Your task to perform on an android device: Go to Wikipedia Image 0: 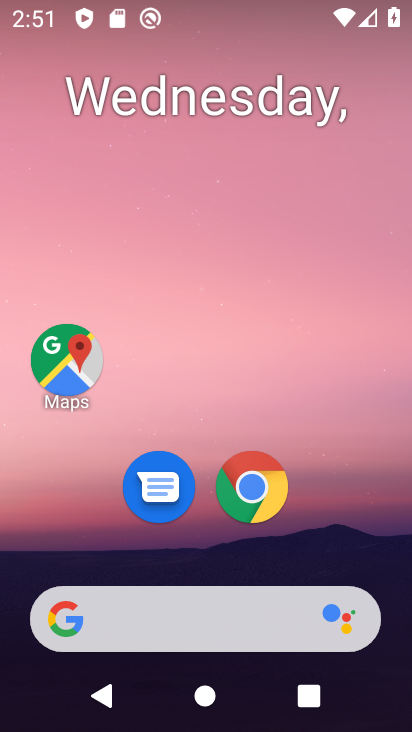
Step 0: drag from (230, 563) to (265, 79)
Your task to perform on an android device: Go to Wikipedia Image 1: 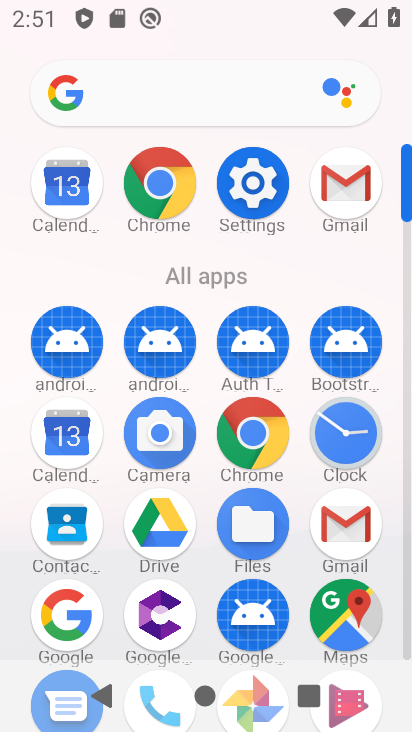
Step 1: click (268, 433)
Your task to perform on an android device: Go to Wikipedia Image 2: 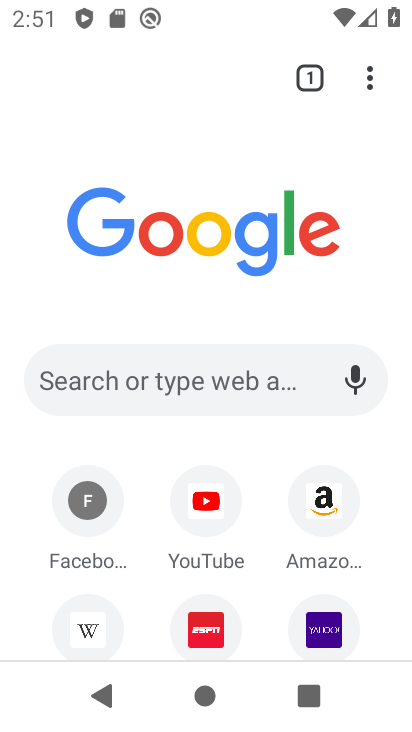
Step 2: click (75, 639)
Your task to perform on an android device: Go to Wikipedia Image 3: 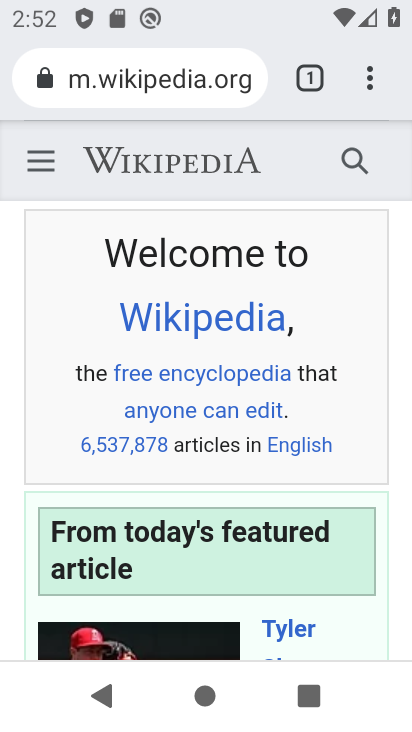
Step 3: drag from (215, 543) to (206, 186)
Your task to perform on an android device: Go to Wikipedia Image 4: 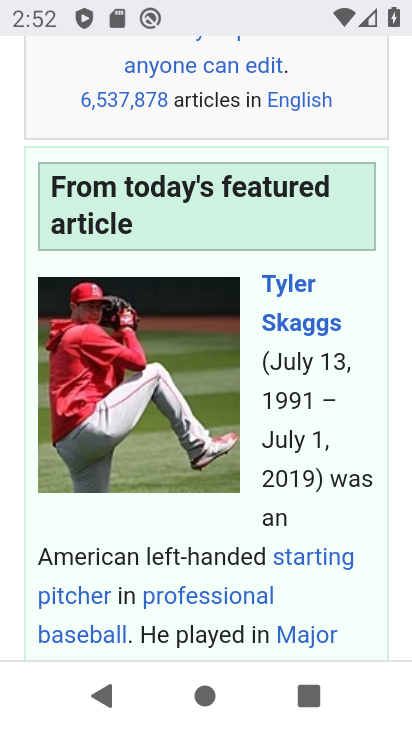
Step 4: click (268, 228)
Your task to perform on an android device: Go to Wikipedia Image 5: 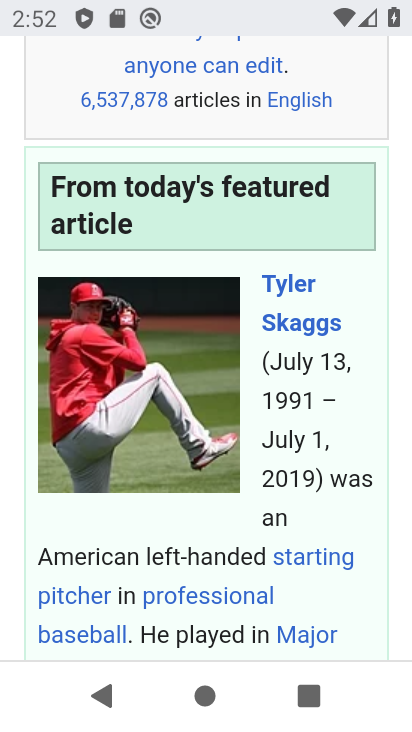
Step 5: task complete